Your task to perform on an android device: Set the phone to "Do not disturb". Image 0: 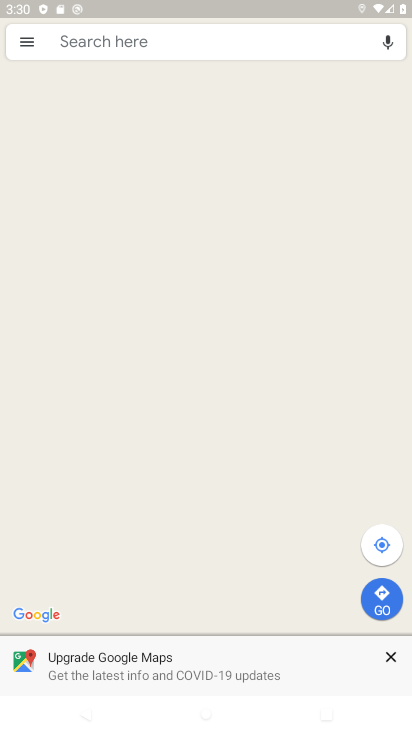
Step 0: press home button
Your task to perform on an android device: Set the phone to "Do not disturb". Image 1: 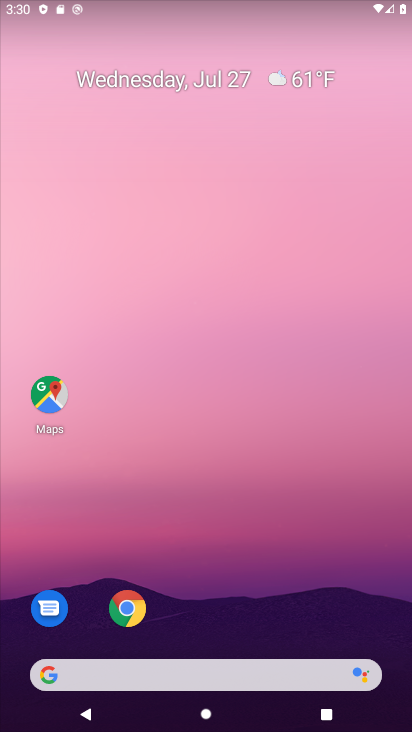
Step 1: drag from (221, 671) to (216, 170)
Your task to perform on an android device: Set the phone to "Do not disturb". Image 2: 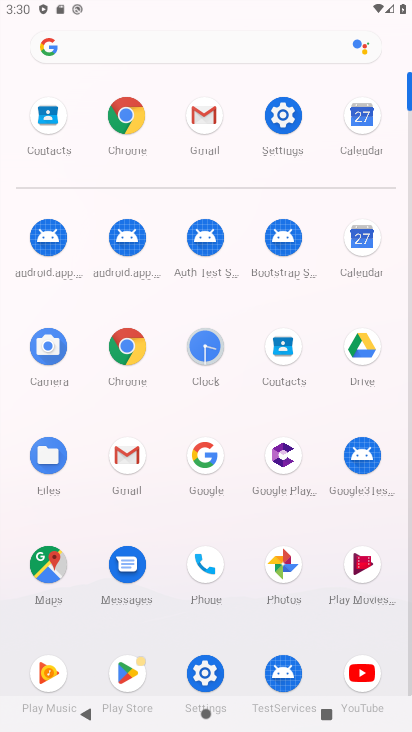
Step 2: click (280, 116)
Your task to perform on an android device: Set the phone to "Do not disturb". Image 3: 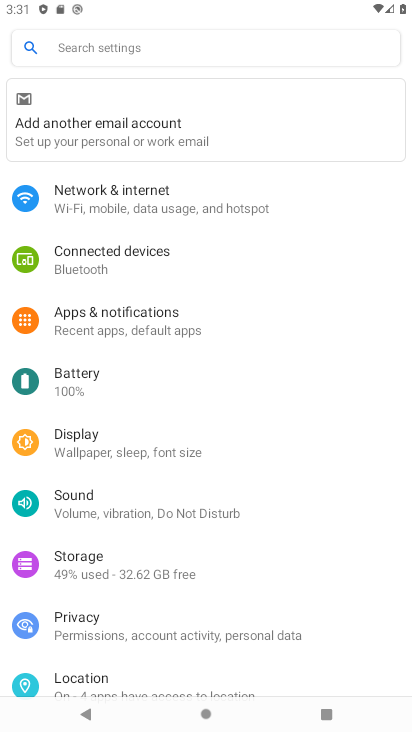
Step 3: click (136, 515)
Your task to perform on an android device: Set the phone to "Do not disturb". Image 4: 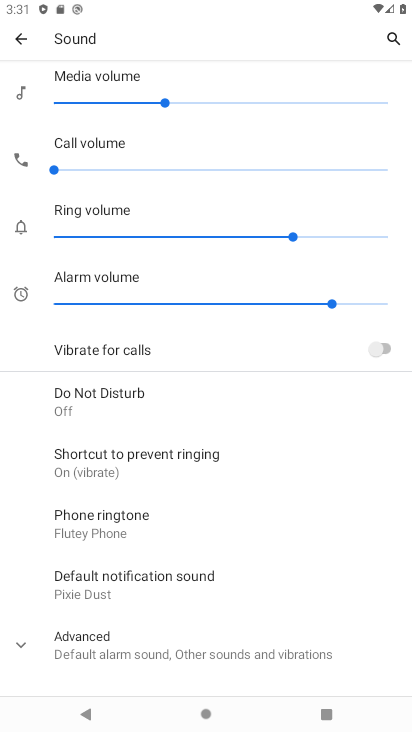
Step 4: click (88, 393)
Your task to perform on an android device: Set the phone to "Do not disturb". Image 5: 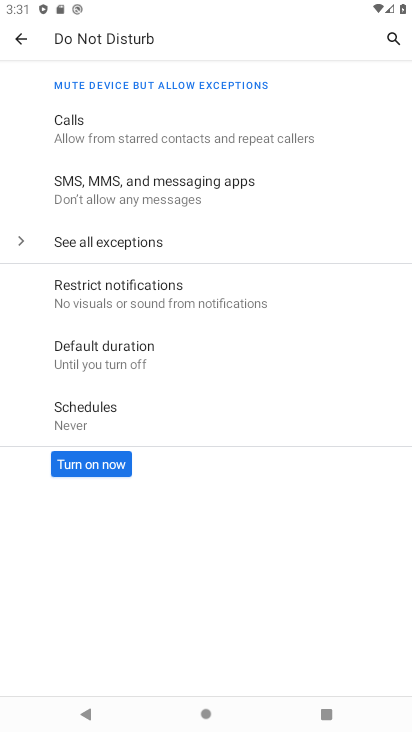
Step 5: click (66, 460)
Your task to perform on an android device: Set the phone to "Do not disturb". Image 6: 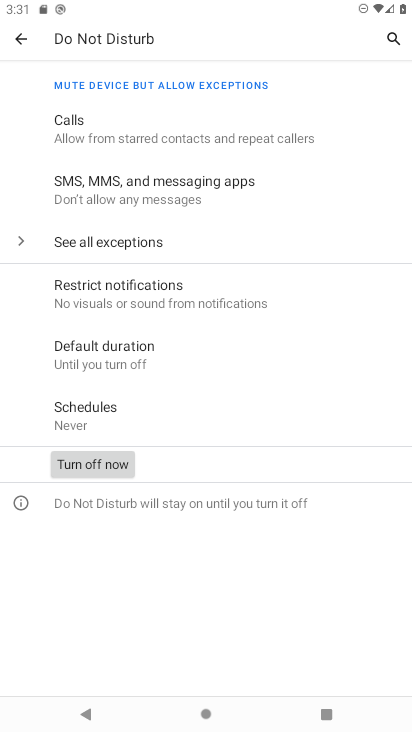
Step 6: task complete